Your task to perform on an android device: move an email to a new category in the gmail app Image 0: 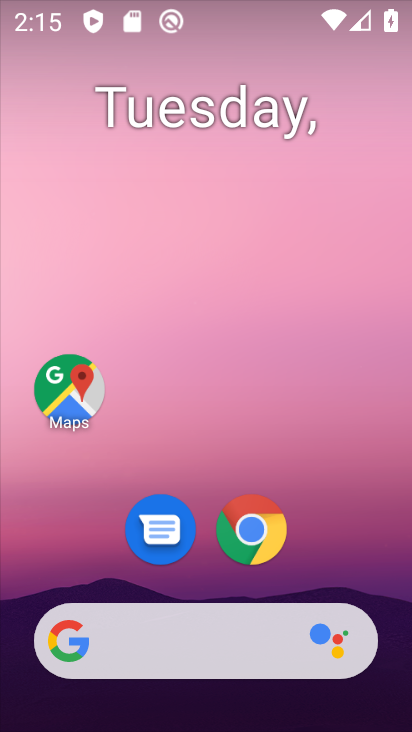
Step 0: drag from (389, 613) to (227, 137)
Your task to perform on an android device: move an email to a new category in the gmail app Image 1: 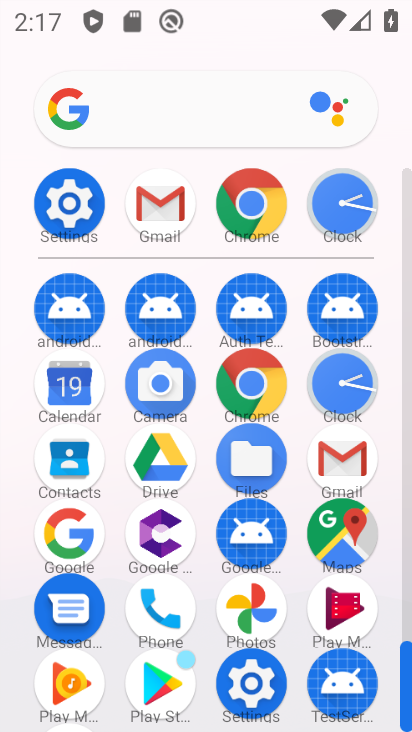
Step 1: click (337, 468)
Your task to perform on an android device: move an email to a new category in the gmail app Image 2: 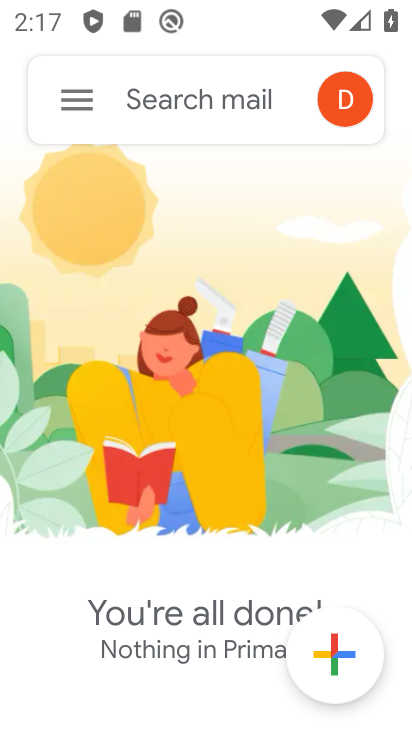
Step 2: task complete